Your task to perform on an android device: Open Reddit.com Image 0: 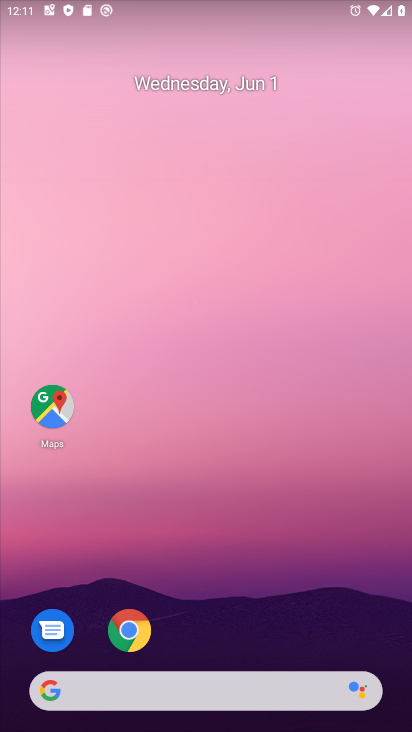
Step 0: click (133, 635)
Your task to perform on an android device: Open Reddit.com Image 1: 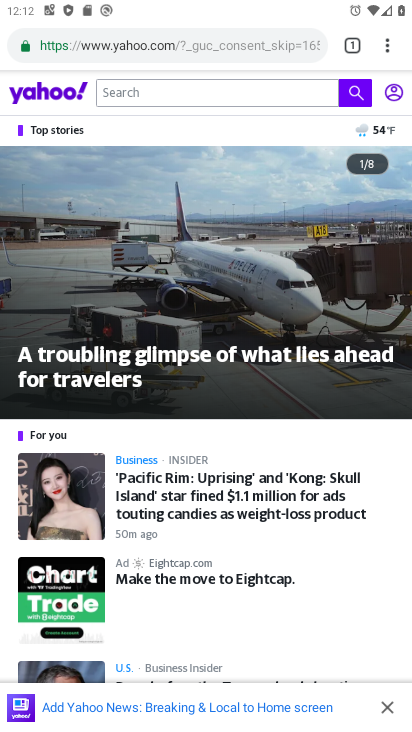
Step 1: click (221, 43)
Your task to perform on an android device: Open Reddit.com Image 2: 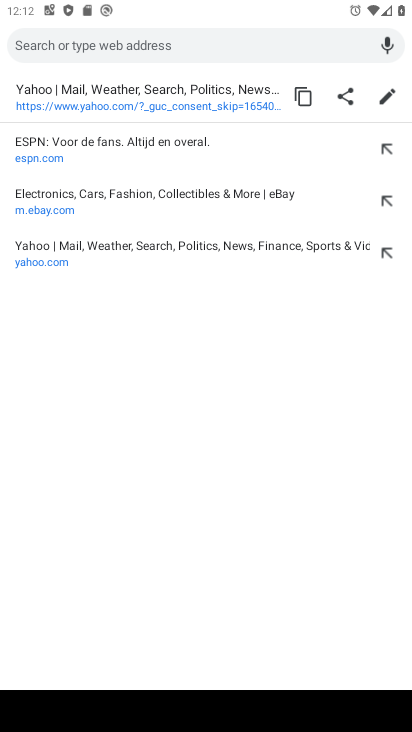
Step 2: type "reddit"
Your task to perform on an android device: Open Reddit.com Image 3: 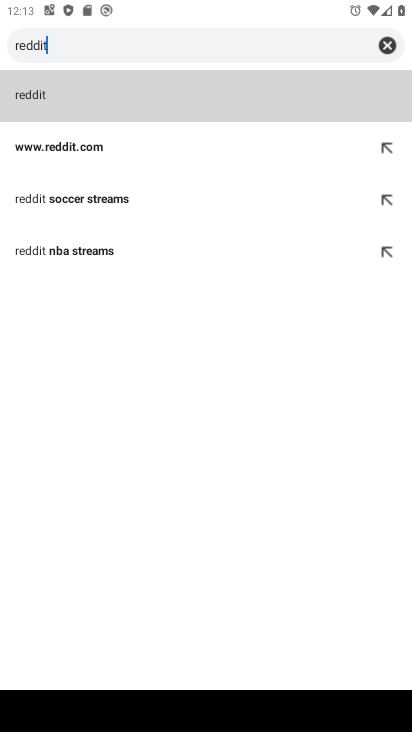
Step 3: click (76, 151)
Your task to perform on an android device: Open Reddit.com Image 4: 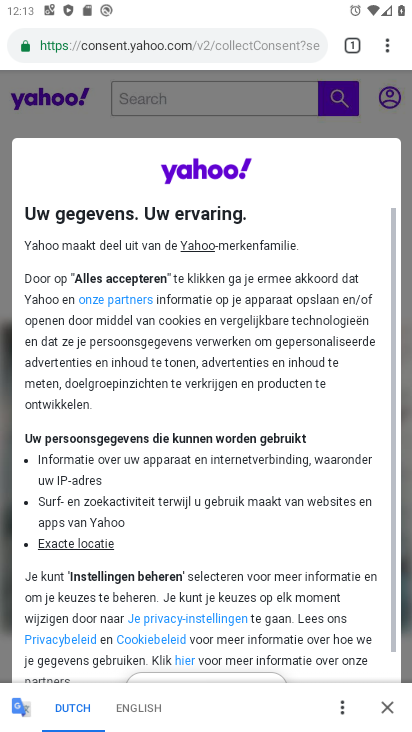
Step 4: click (133, 721)
Your task to perform on an android device: Open Reddit.com Image 5: 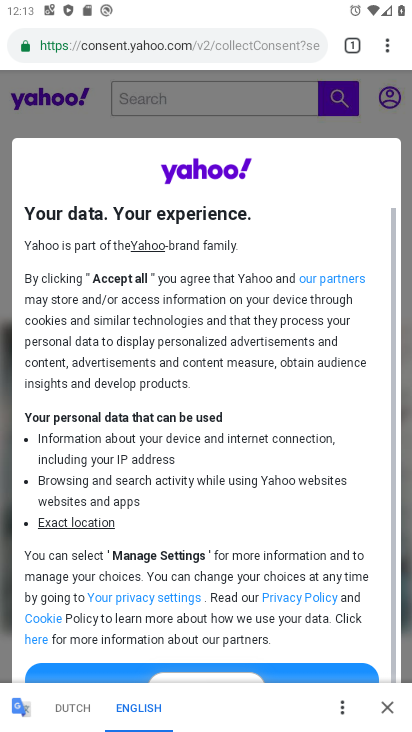
Step 5: task complete